Your task to perform on an android device: install app "Adobe Express: Graphic Design" Image 0: 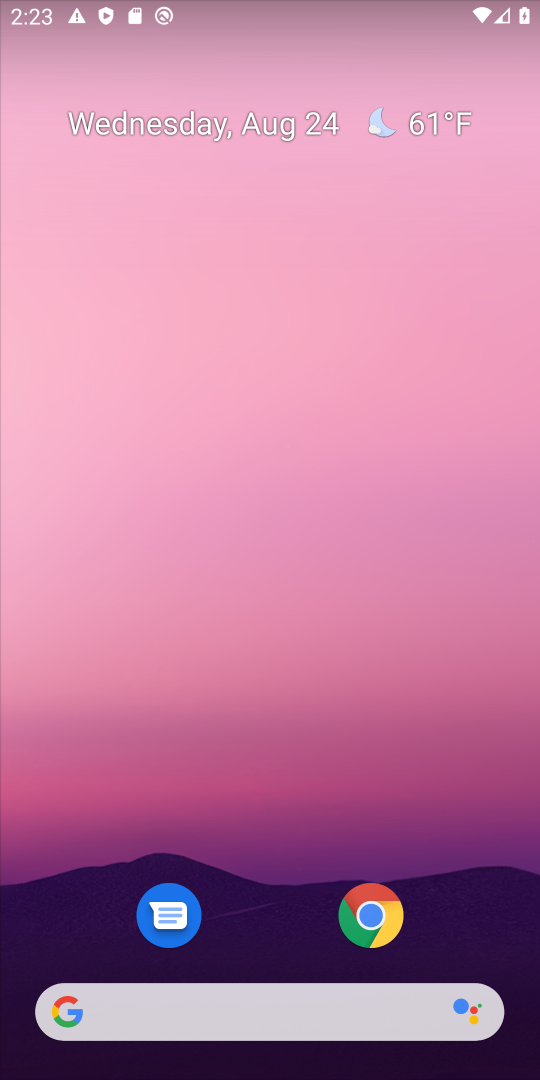
Step 0: drag from (249, 818) to (214, 91)
Your task to perform on an android device: install app "Adobe Express: Graphic Design" Image 1: 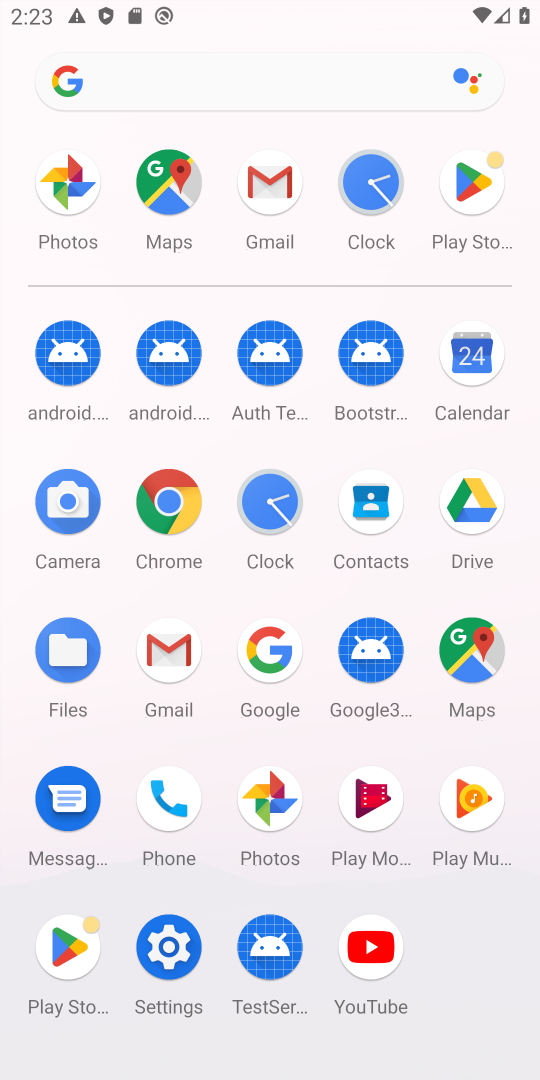
Step 1: click (488, 177)
Your task to perform on an android device: install app "Adobe Express: Graphic Design" Image 2: 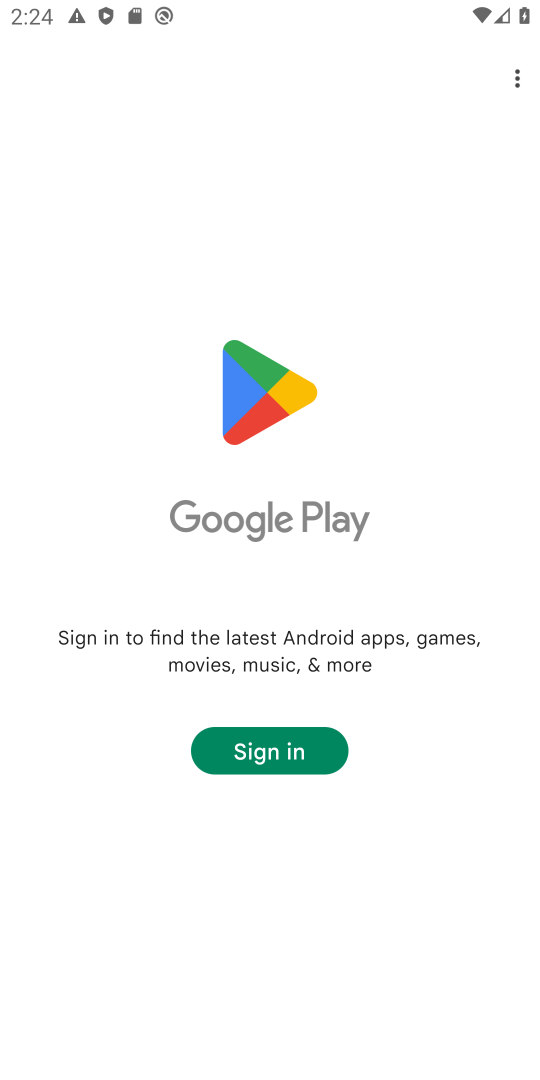
Step 2: task complete